Your task to perform on an android device: turn off airplane mode Image 0: 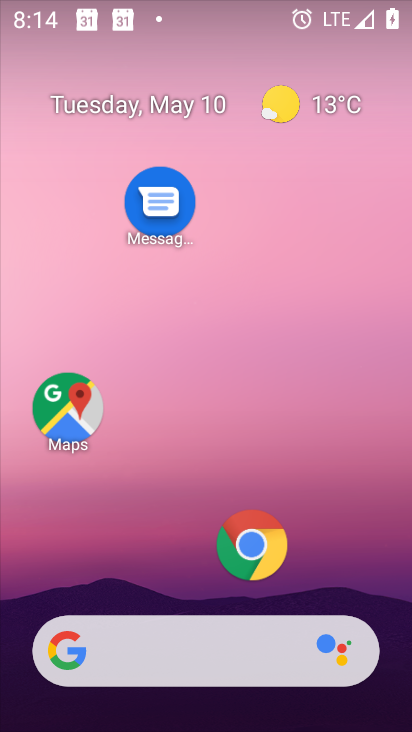
Step 0: press home button
Your task to perform on an android device: turn off airplane mode Image 1: 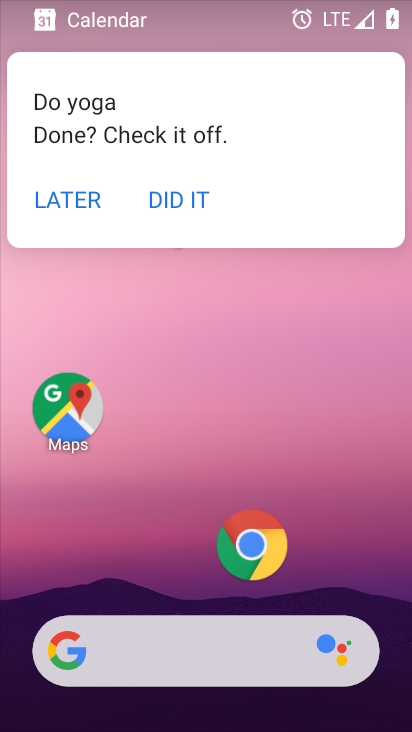
Step 1: click (65, 199)
Your task to perform on an android device: turn off airplane mode Image 2: 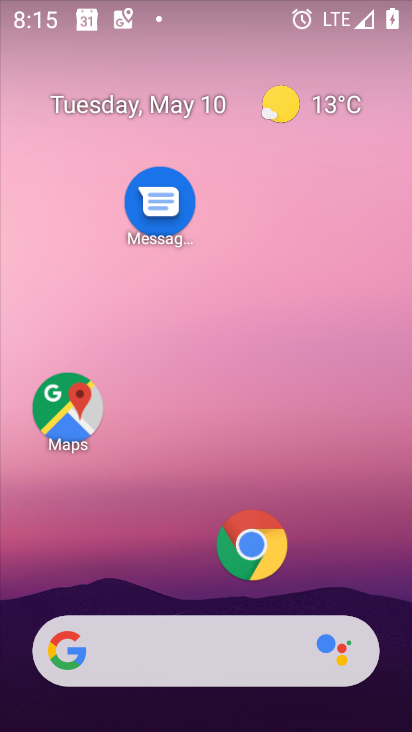
Step 2: task complete